Your task to perform on an android device: see tabs open on other devices in the chrome app Image 0: 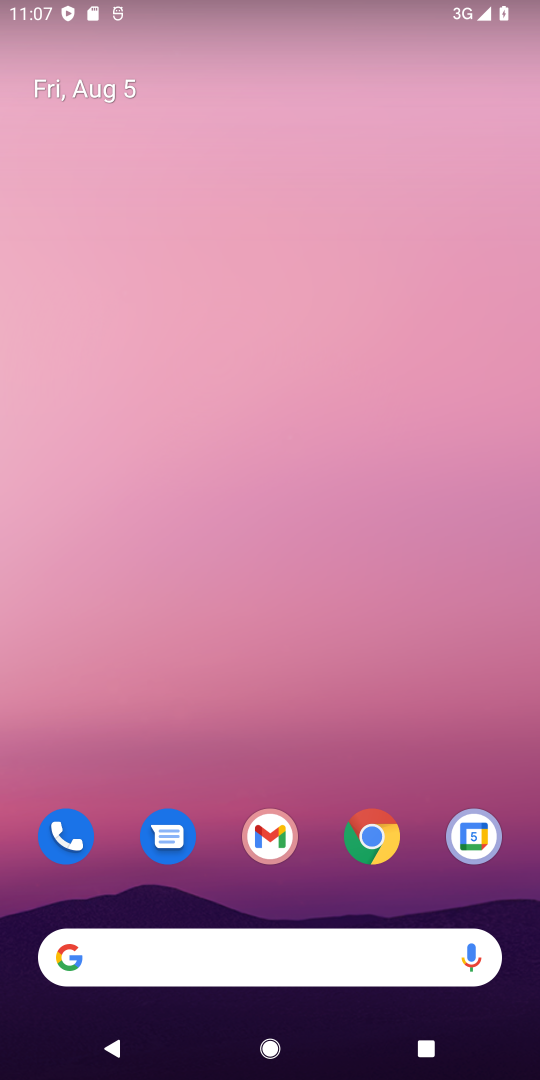
Step 0: drag from (314, 895) to (322, 326)
Your task to perform on an android device: see tabs open on other devices in the chrome app Image 1: 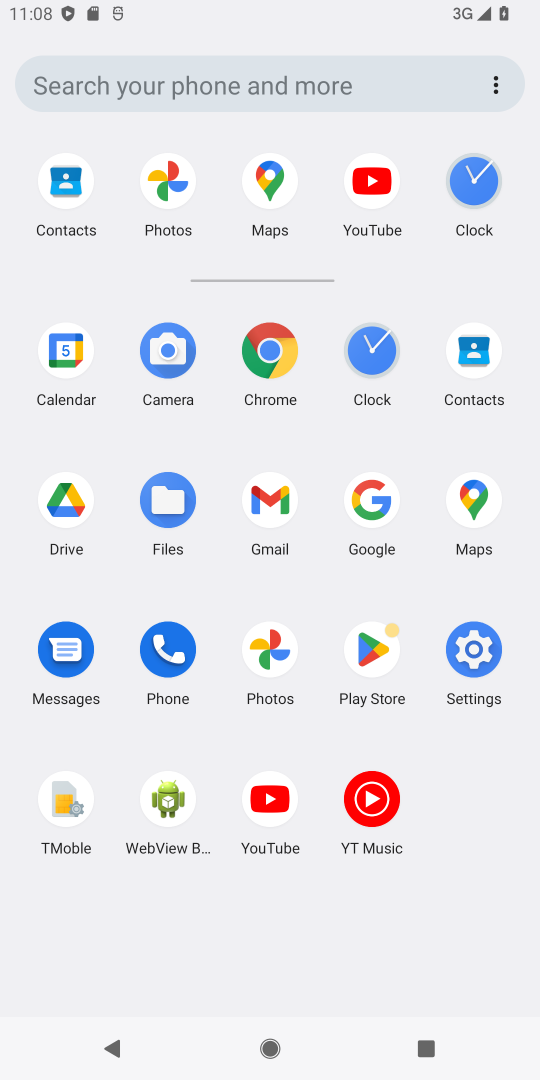
Step 1: click (271, 353)
Your task to perform on an android device: see tabs open on other devices in the chrome app Image 2: 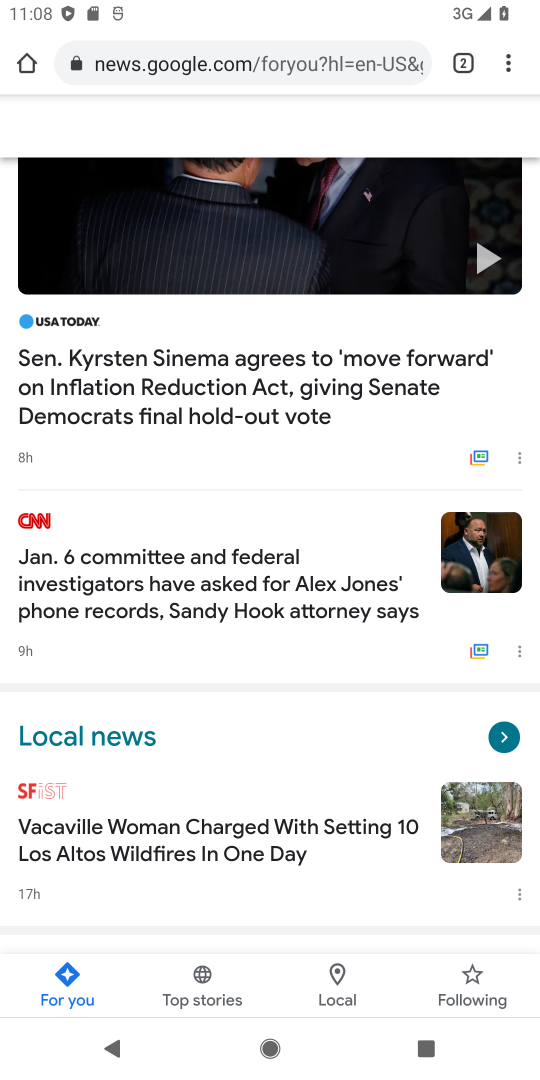
Step 2: task complete